Your task to perform on an android device: delete a single message in the gmail app Image 0: 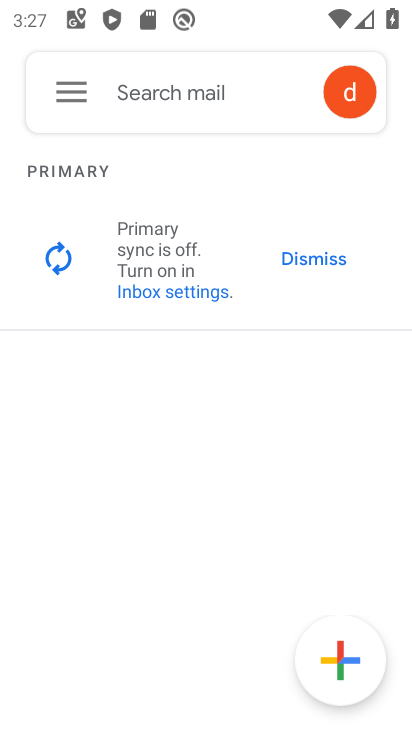
Step 0: press home button
Your task to perform on an android device: delete a single message in the gmail app Image 1: 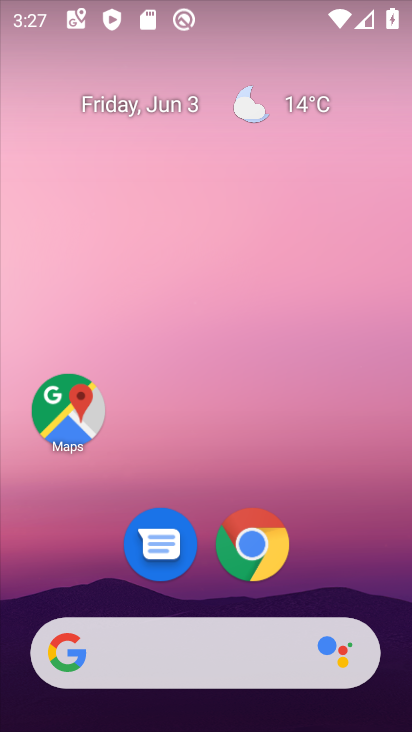
Step 1: drag from (390, 620) to (364, 99)
Your task to perform on an android device: delete a single message in the gmail app Image 2: 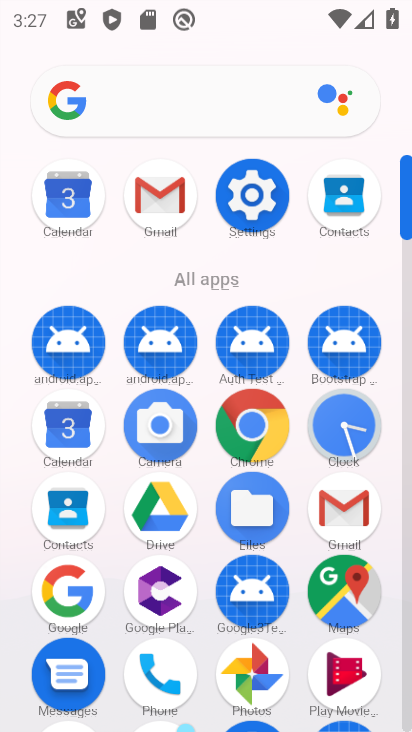
Step 2: click (403, 665)
Your task to perform on an android device: delete a single message in the gmail app Image 3: 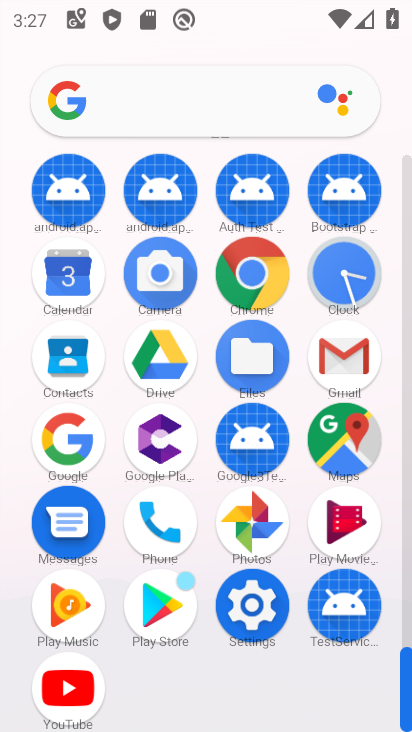
Step 3: click (341, 355)
Your task to perform on an android device: delete a single message in the gmail app Image 4: 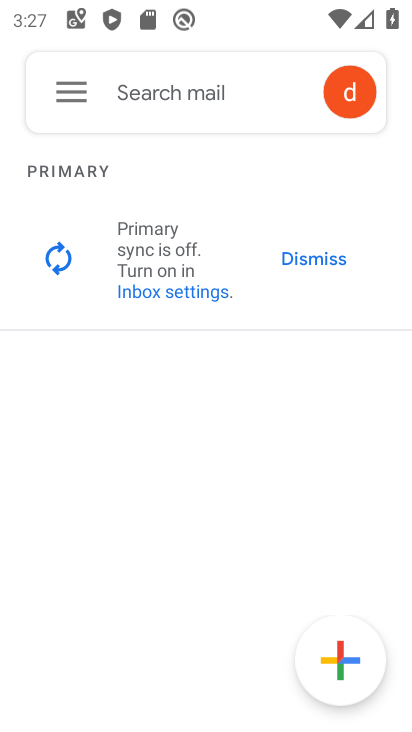
Step 4: click (71, 86)
Your task to perform on an android device: delete a single message in the gmail app Image 5: 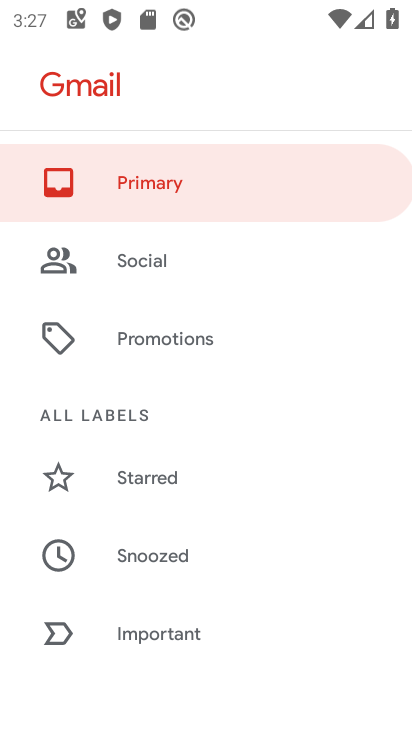
Step 5: drag from (263, 580) to (256, 216)
Your task to perform on an android device: delete a single message in the gmail app Image 6: 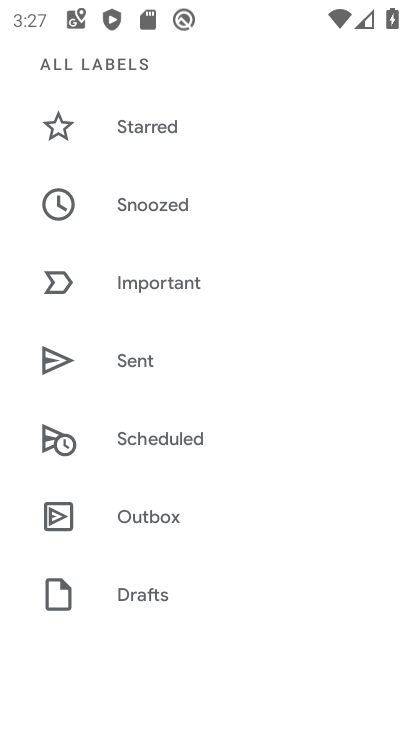
Step 6: drag from (248, 528) to (270, 155)
Your task to perform on an android device: delete a single message in the gmail app Image 7: 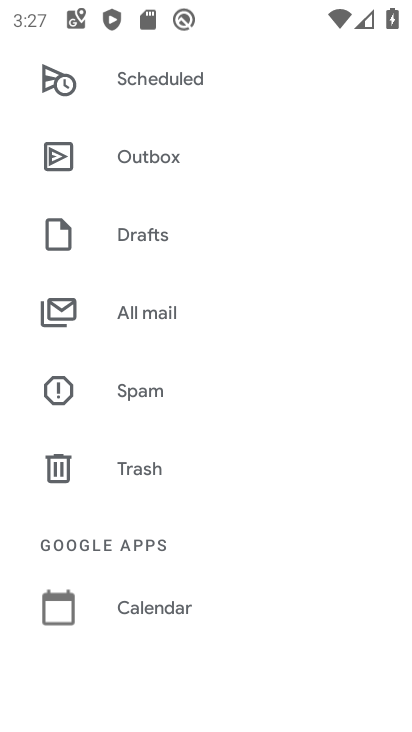
Step 7: click (147, 304)
Your task to perform on an android device: delete a single message in the gmail app Image 8: 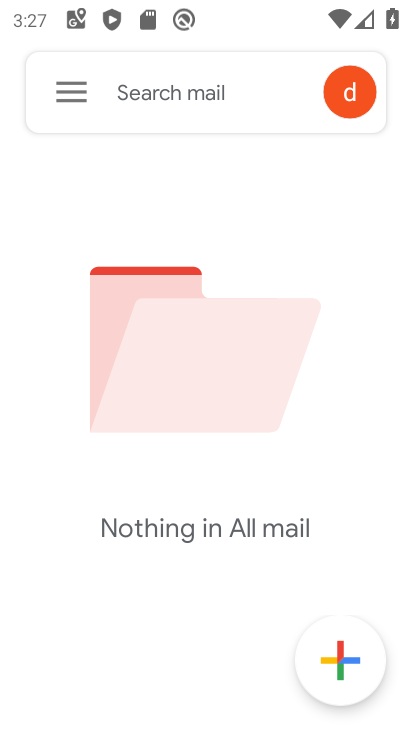
Step 8: task complete